Your task to perform on an android device: toggle notification dots Image 0: 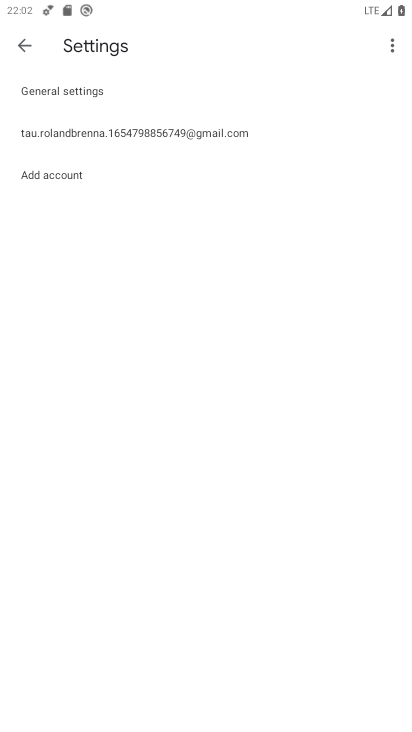
Step 0: press home button
Your task to perform on an android device: toggle notification dots Image 1: 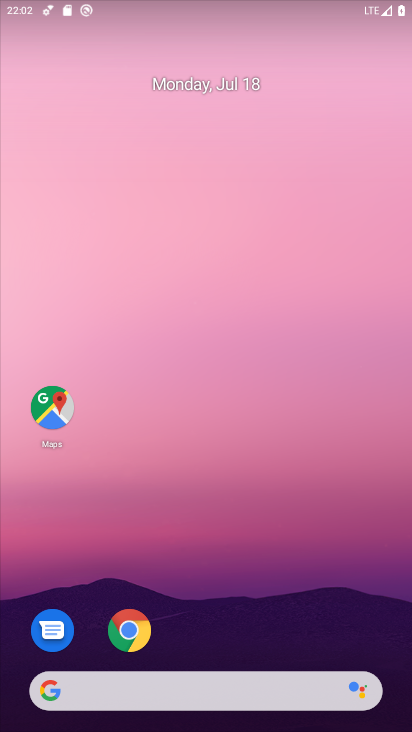
Step 1: drag from (261, 461) to (262, 220)
Your task to perform on an android device: toggle notification dots Image 2: 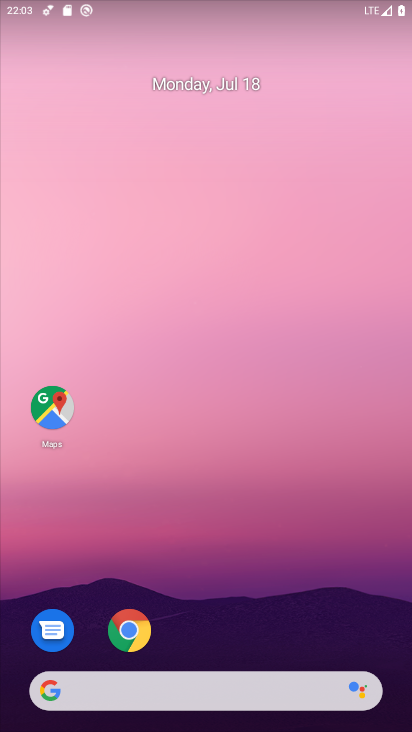
Step 2: drag from (196, 604) to (204, 244)
Your task to perform on an android device: toggle notification dots Image 3: 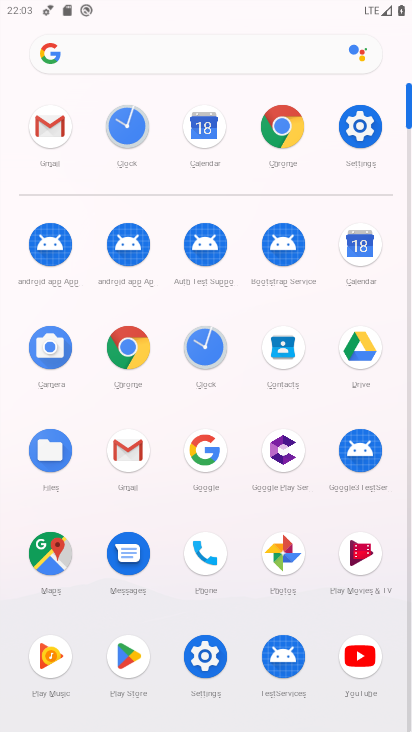
Step 3: click (367, 112)
Your task to perform on an android device: toggle notification dots Image 4: 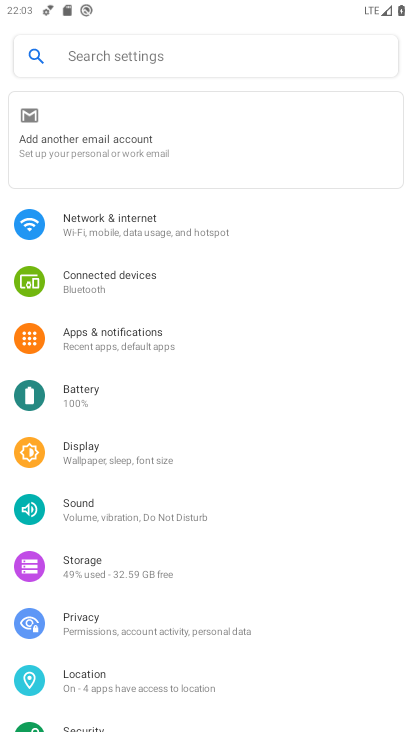
Step 4: click (194, 51)
Your task to perform on an android device: toggle notification dots Image 5: 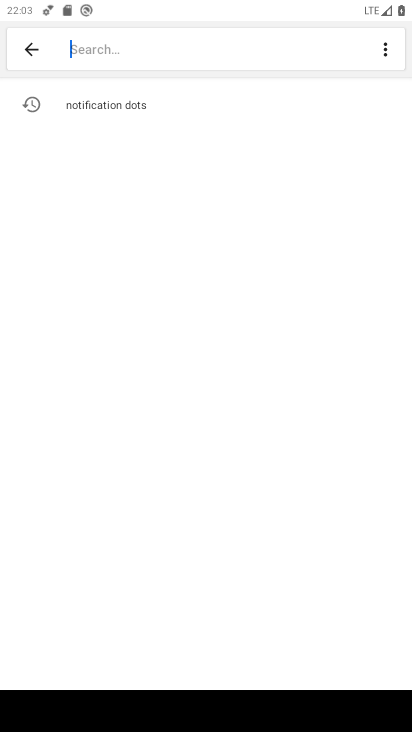
Step 5: click (157, 107)
Your task to perform on an android device: toggle notification dots Image 6: 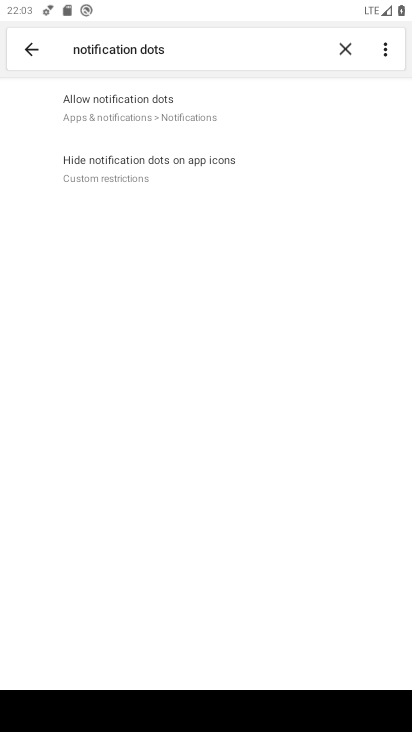
Step 6: click (204, 97)
Your task to perform on an android device: toggle notification dots Image 7: 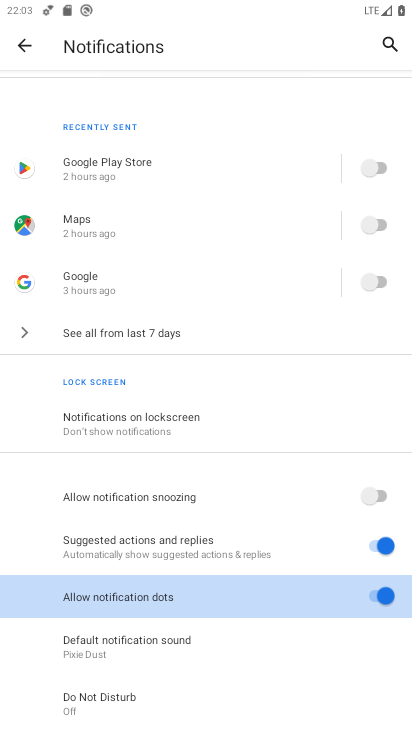
Step 7: click (387, 594)
Your task to perform on an android device: toggle notification dots Image 8: 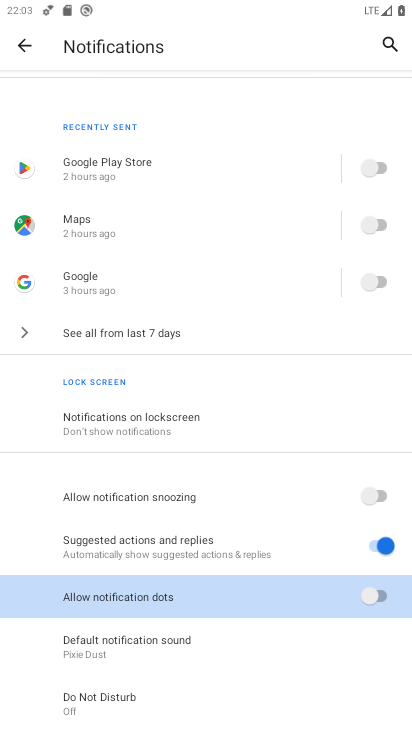
Step 8: task complete